Your task to perform on an android device: Open the Play Movies app and select the watchlist tab. Image 0: 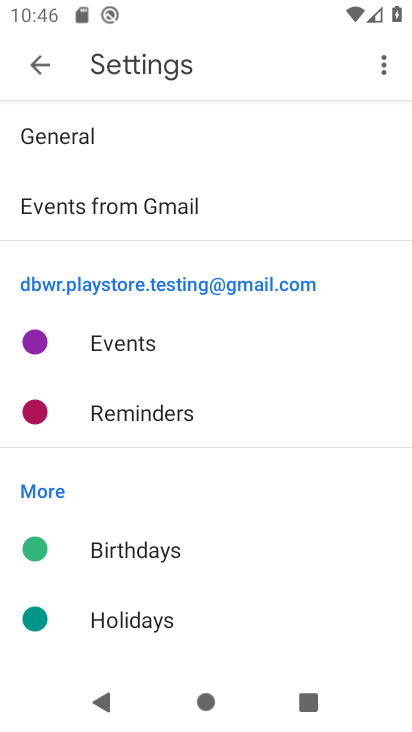
Step 0: drag from (311, 593) to (300, 379)
Your task to perform on an android device: Open the Play Movies app and select the watchlist tab. Image 1: 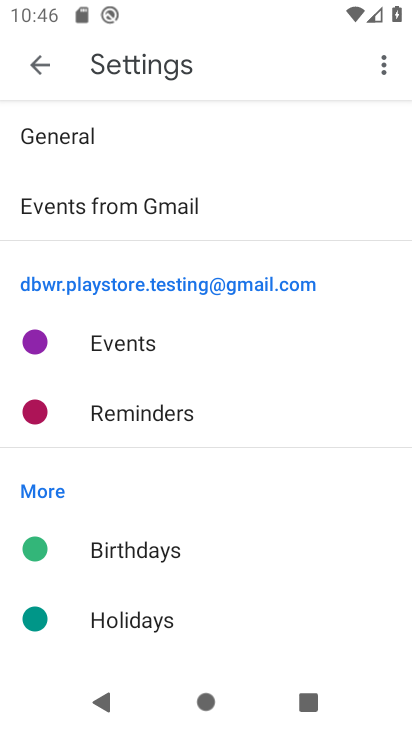
Step 1: press home button
Your task to perform on an android device: Open the Play Movies app and select the watchlist tab. Image 2: 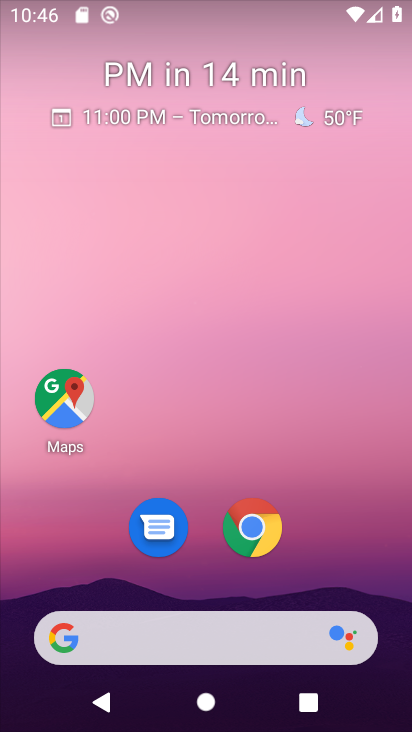
Step 2: drag from (371, 553) to (351, 127)
Your task to perform on an android device: Open the Play Movies app and select the watchlist tab. Image 3: 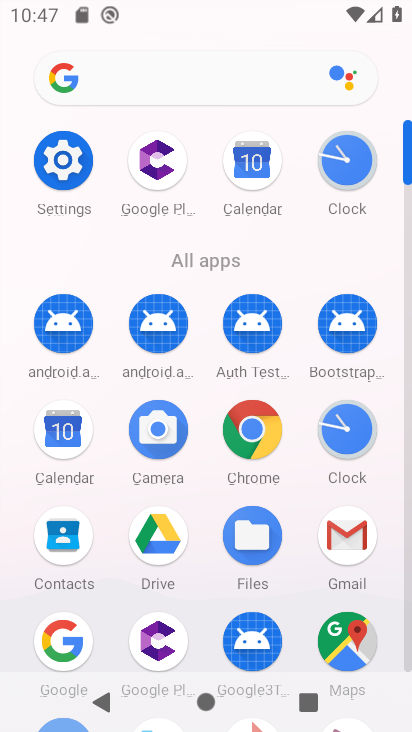
Step 3: drag from (288, 281) to (256, 90)
Your task to perform on an android device: Open the Play Movies app and select the watchlist tab. Image 4: 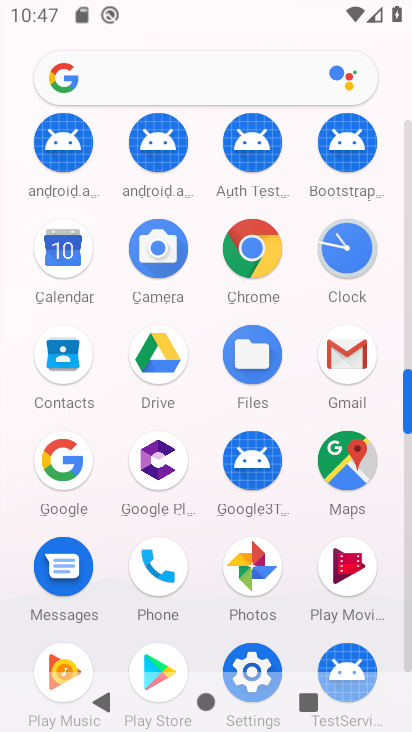
Step 4: click (338, 577)
Your task to perform on an android device: Open the Play Movies app and select the watchlist tab. Image 5: 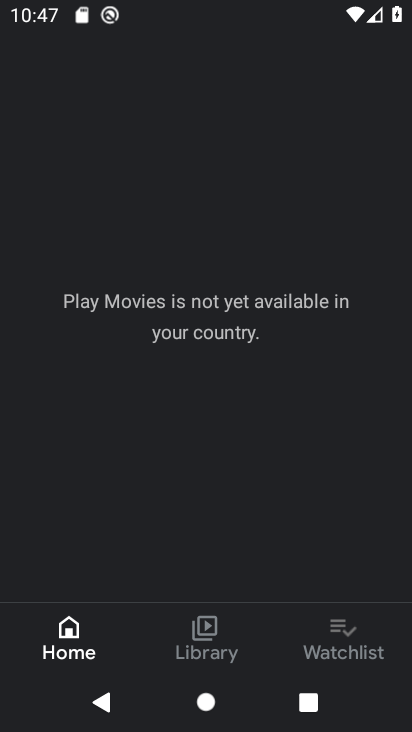
Step 5: click (348, 627)
Your task to perform on an android device: Open the Play Movies app and select the watchlist tab. Image 6: 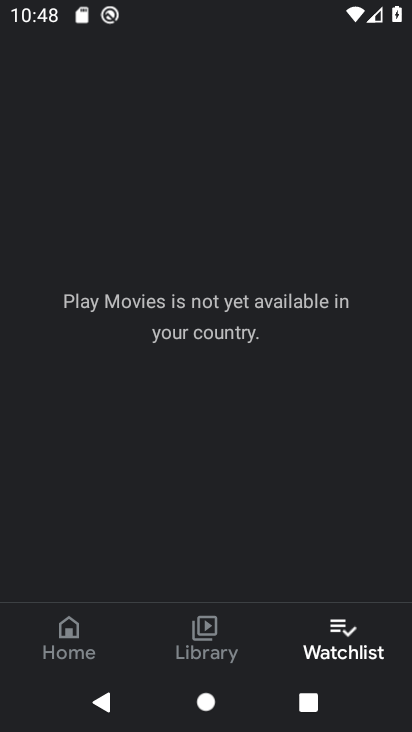
Step 6: task complete